Your task to perform on an android device: Go to wifi settings Image 0: 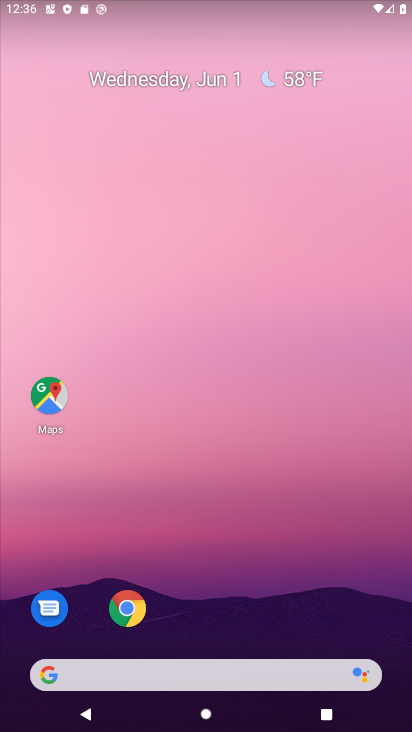
Step 0: drag from (236, 645) to (177, 17)
Your task to perform on an android device: Go to wifi settings Image 1: 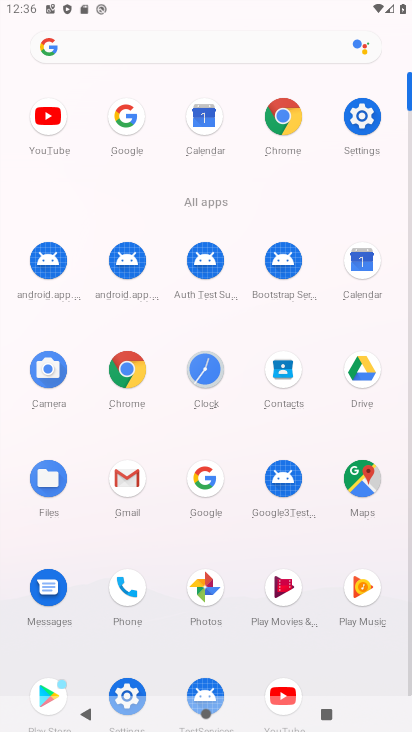
Step 1: click (363, 105)
Your task to perform on an android device: Go to wifi settings Image 2: 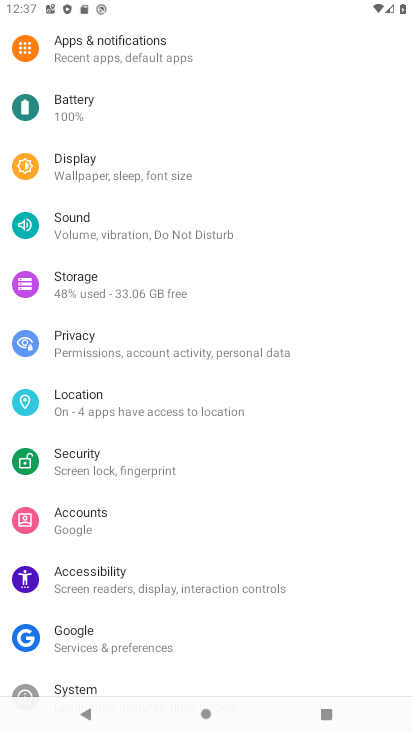
Step 2: drag from (114, 32) to (126, 423)
Your task to perform on an android device: Go to wifi settings Image 3: 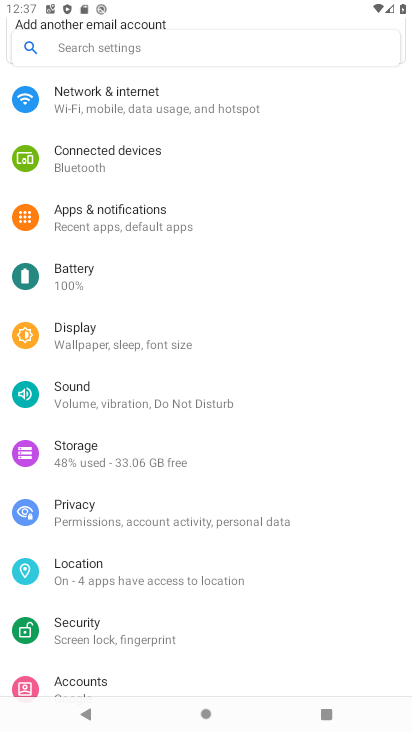
Step 3: click (133, 102)
Your task to perform on an android device: Go to wifi settings Image 4: 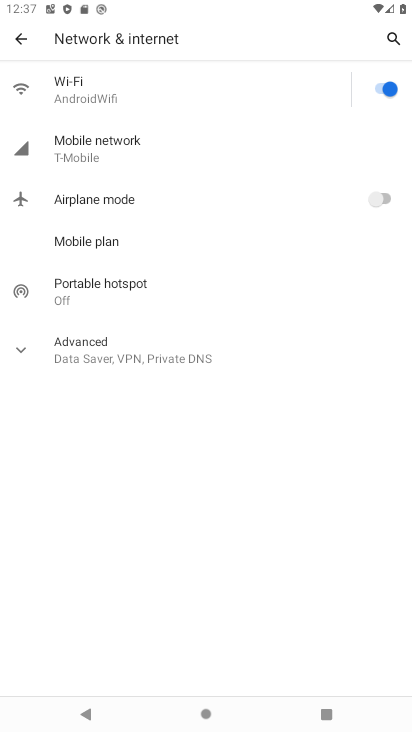
Step 4: click (122, 99)
Your task to perform on an android device: Go to wifi settings Image 5: 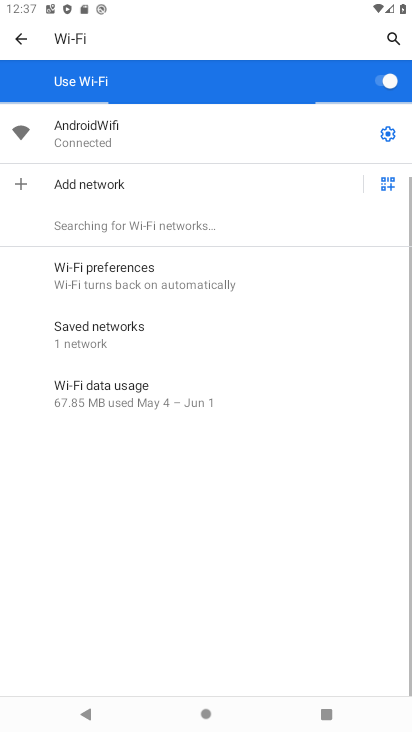
Step 5: task complete